Your task to perform on an android device: Do I have any events this weekend? Image 0: 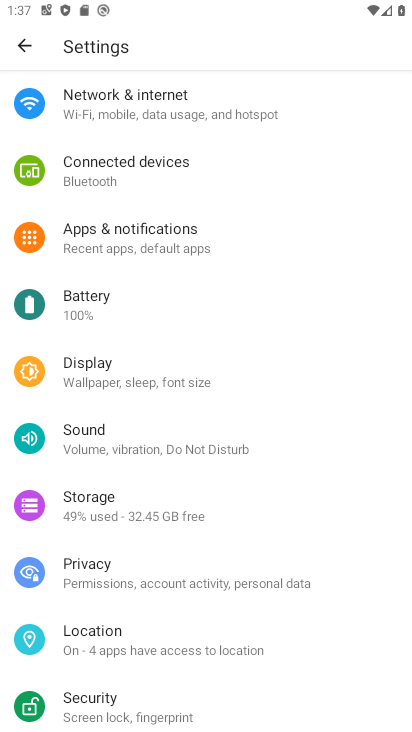
Step 0: press home button
Your task to perform on an android device: Do I have any events this weekend? Image 1: 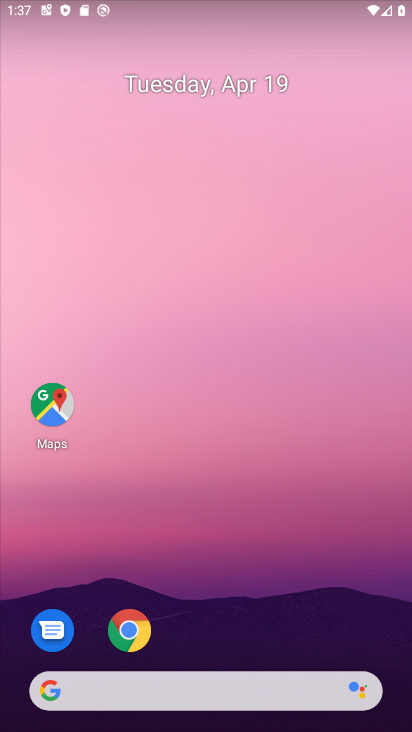
Step 1: drag from (231, 546) to (168, 135)
Your task to perform on an android device: Do I have any events this weekend? Image 2: 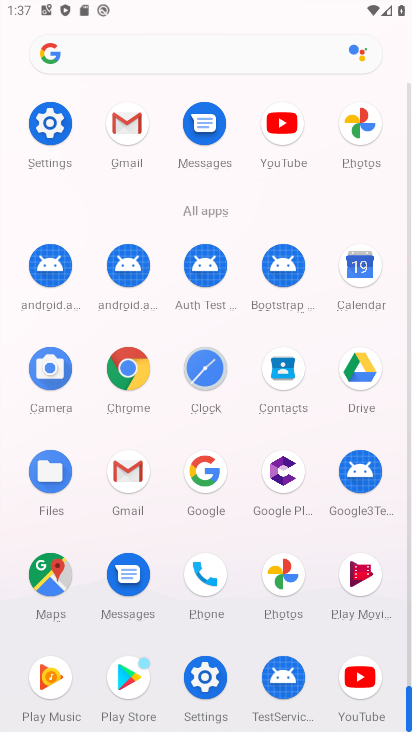
Step 2: click (362, 266)
Your task to perform on an android device: Do I have any events this weekend? Image 3: 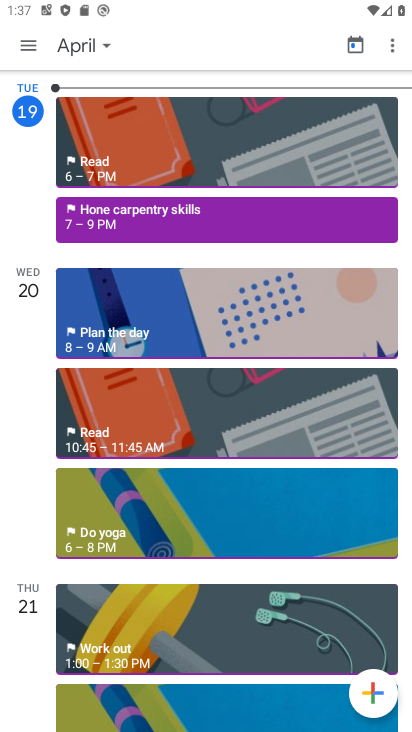
Step 3: click (22, 35)
Your task to perform on an android device: Do I have any events this weekend? Image 4: 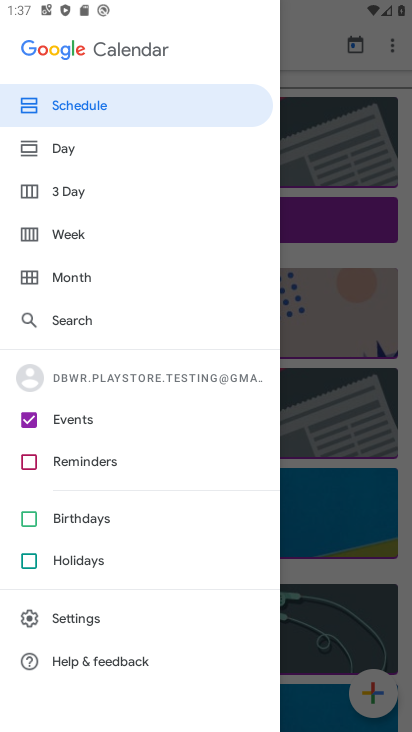
Step 4: click (372, 252)
Your task to perform on an android device: Do I have any events this weekend? Image 5: 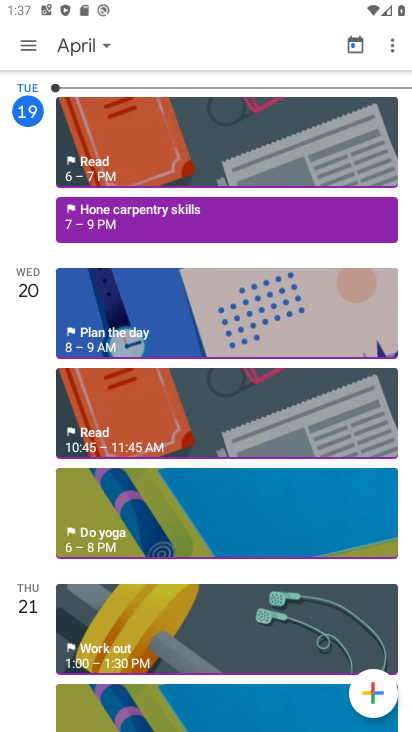
Step 5: task complete